Your task to perform on an android device: set the timer Image 0: 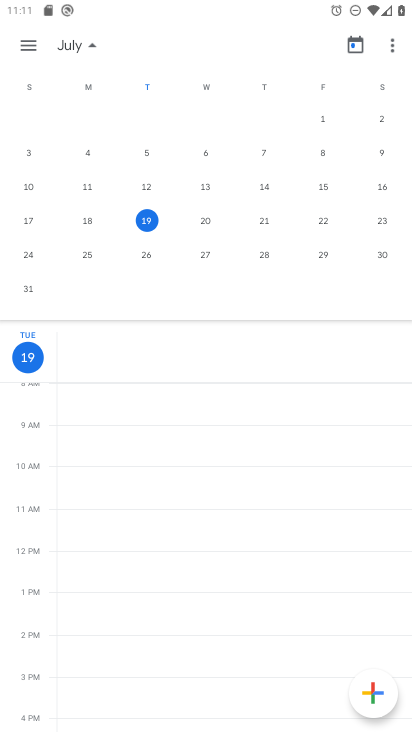
Step 0: press home button
Your task to perform on an android device: set the timer Image 1: 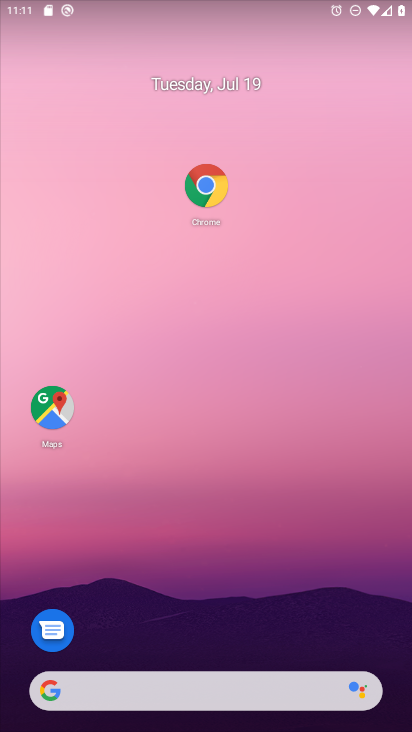
Step 1: drag from (162, 656) to (341, 15)
Your task to perform on an android device: set the timer Image 2: 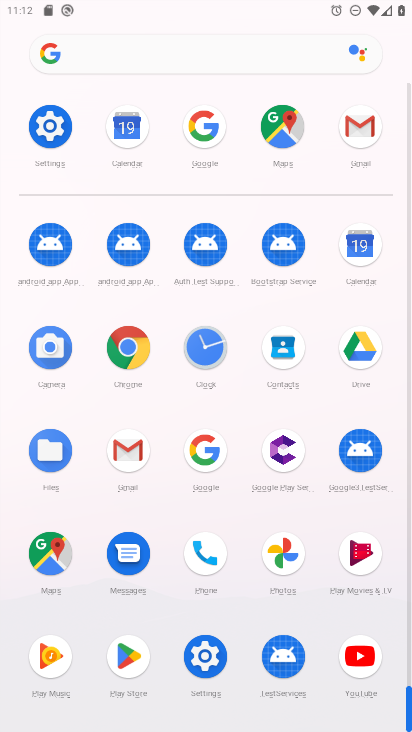
Step 2: click (191, 352)
Your task to perform on an android device: set the timer Image 3: 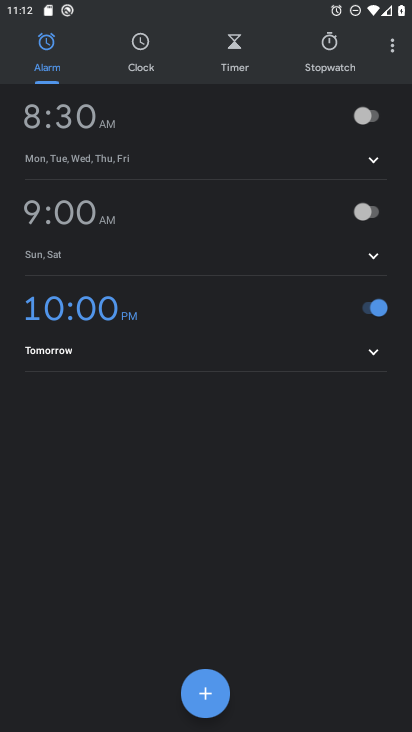
Step 3: click (244, 61)
Your task to perform on an android device: set the timer Image 4: 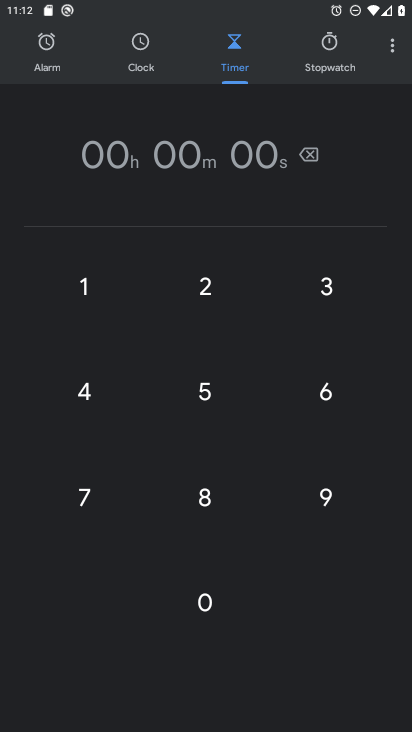
Step 4: click (206, 301)
Your task to perform on an android device: set the timer Image 5: 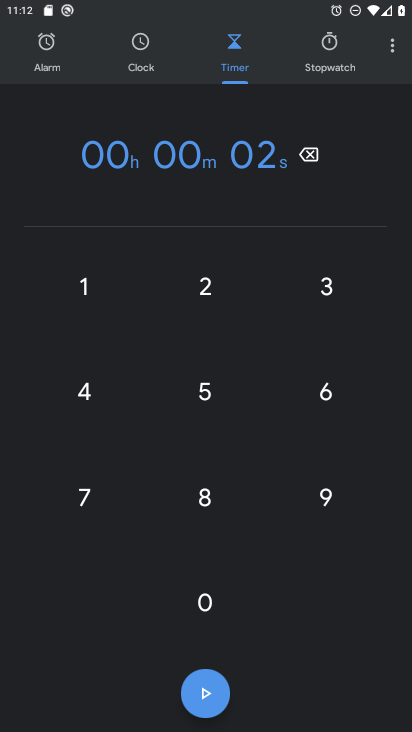
Step 5: click (214, 708)
Your task to perform on an android device: set the timer Image 6: 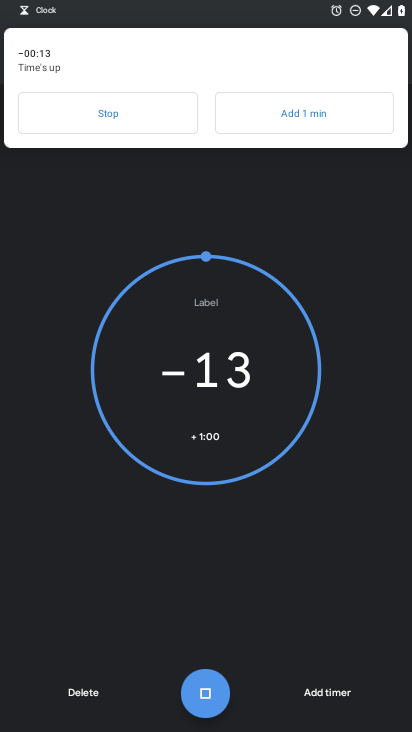
Step 6: task complete